Your task to perform on an android device: open app "Indeed Job Search" (install if not already installed) Image 0: 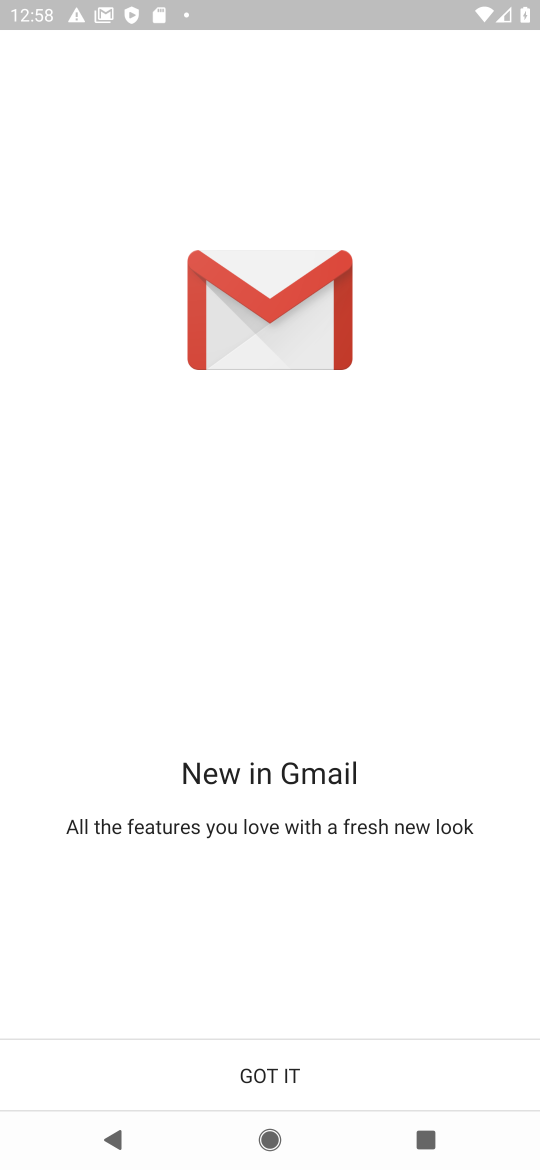
Step 0: press home button
Your task to perform on an android device: open app "Indeed Job Search" (install if not already installed) Image 1: 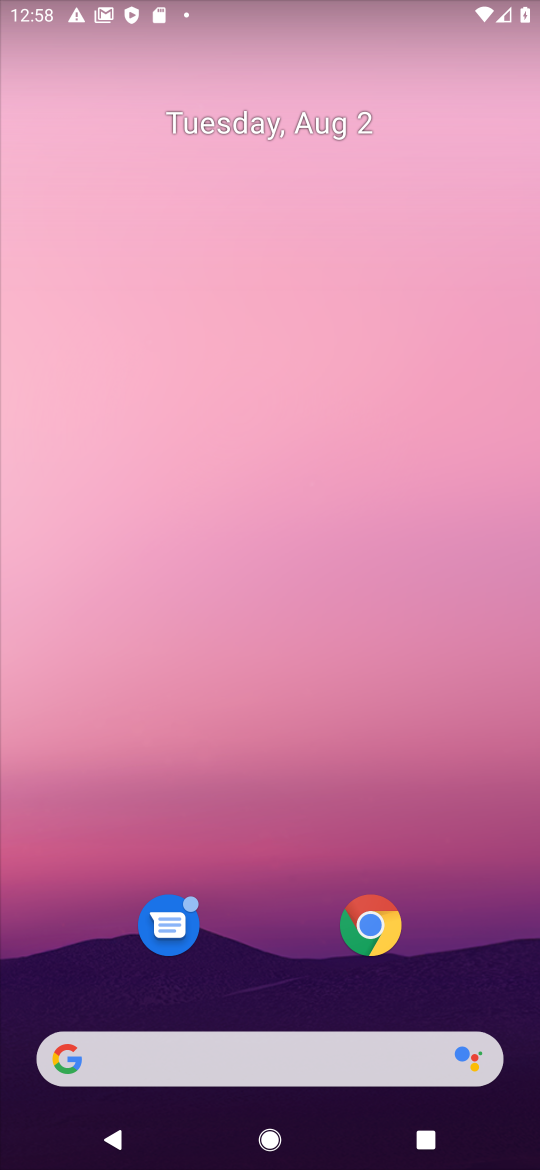
Step 1: drag from (279, 986) to (425, 9)
Your task to perform on an android device: open app "Indeed Job Search" (install if not already installed) Image 2: 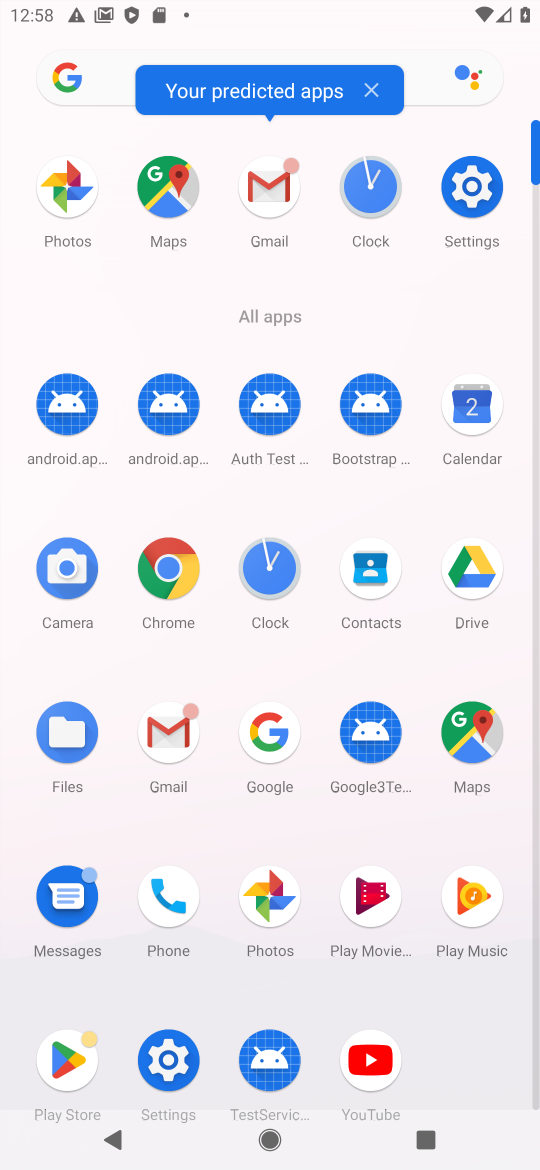
Step 2: click (53, 1051)
Your task to perform on an android device: open app "Indeed Job Search" (install if not already installed) Image 3: 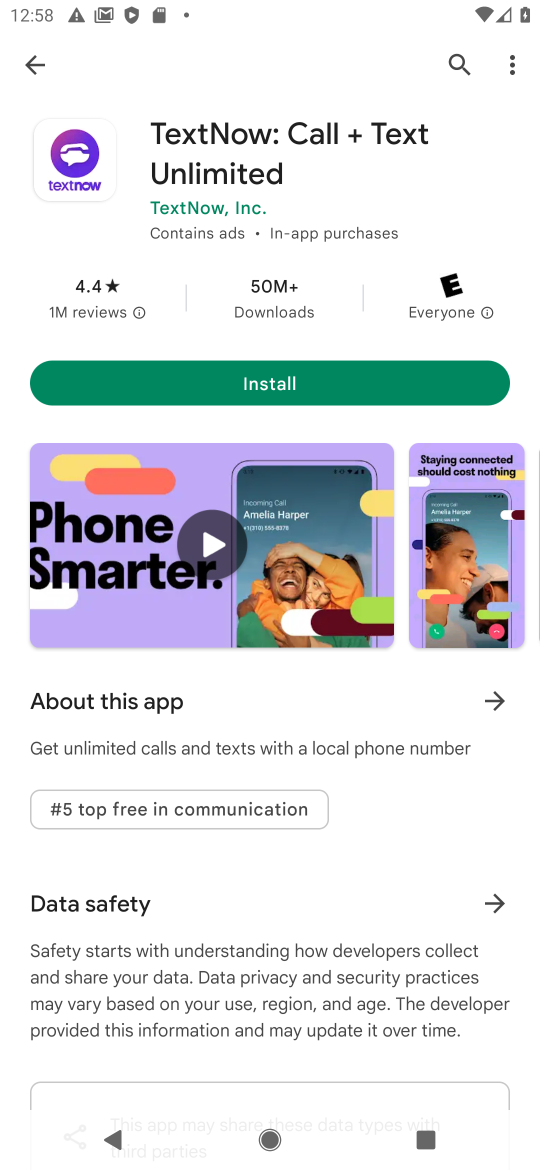
Step 3: click (455, 66)
Your task to perform on an android device: open app "Indeed Job Search" (install if not already installed) Image 4: 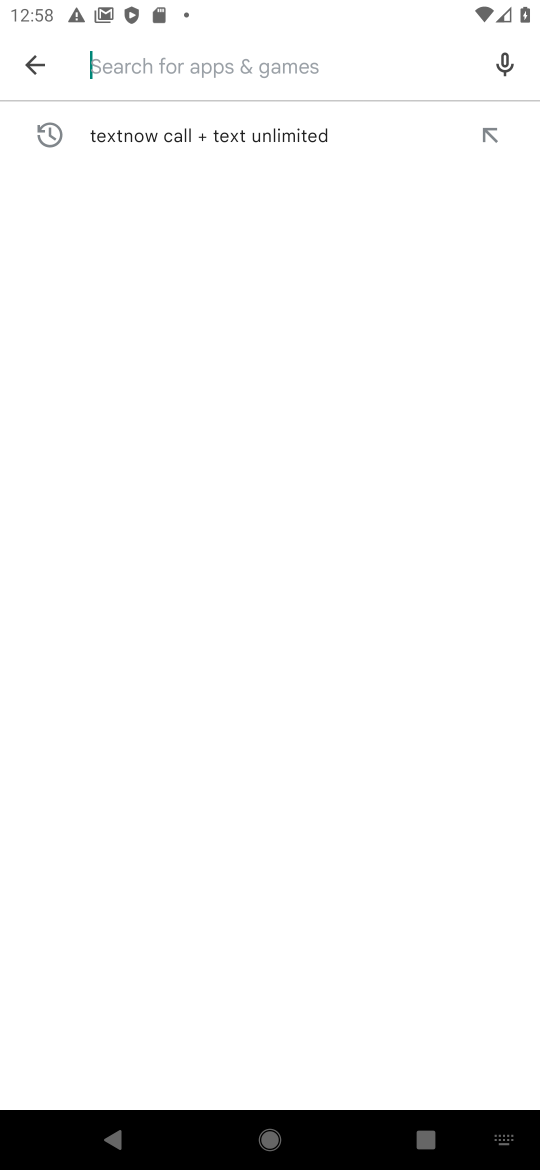
Step 4: type "indeed job search"
Your task to perform on an android device: open app "Indeed Job Search" (install if not already installed) Image 5: 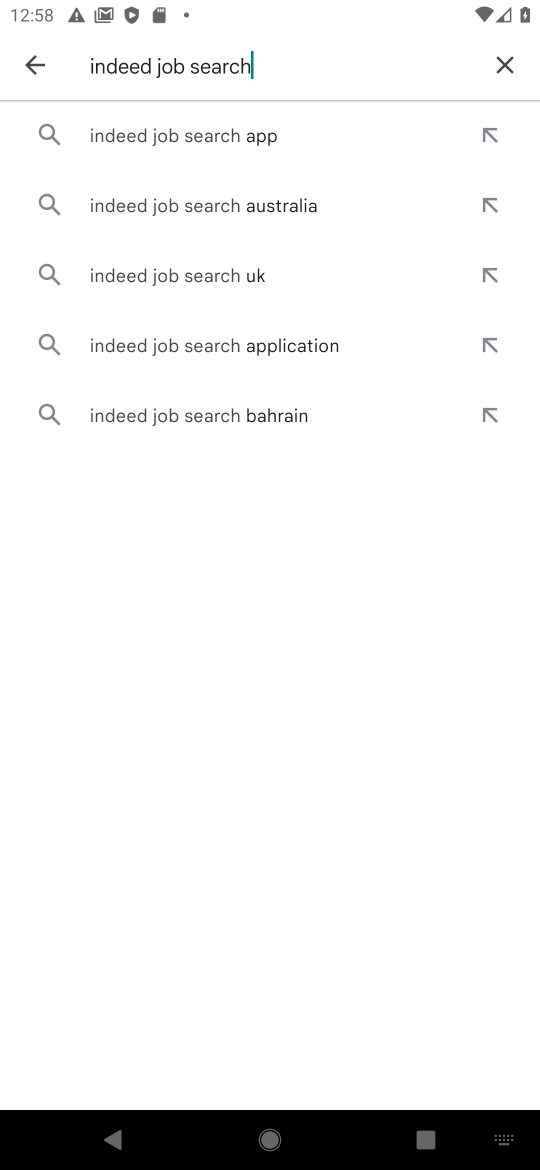
Step 5: click (266, 125)
Your task to perform on an android device: open app "Indeed Job Search" (install if not already installed) Image 6: 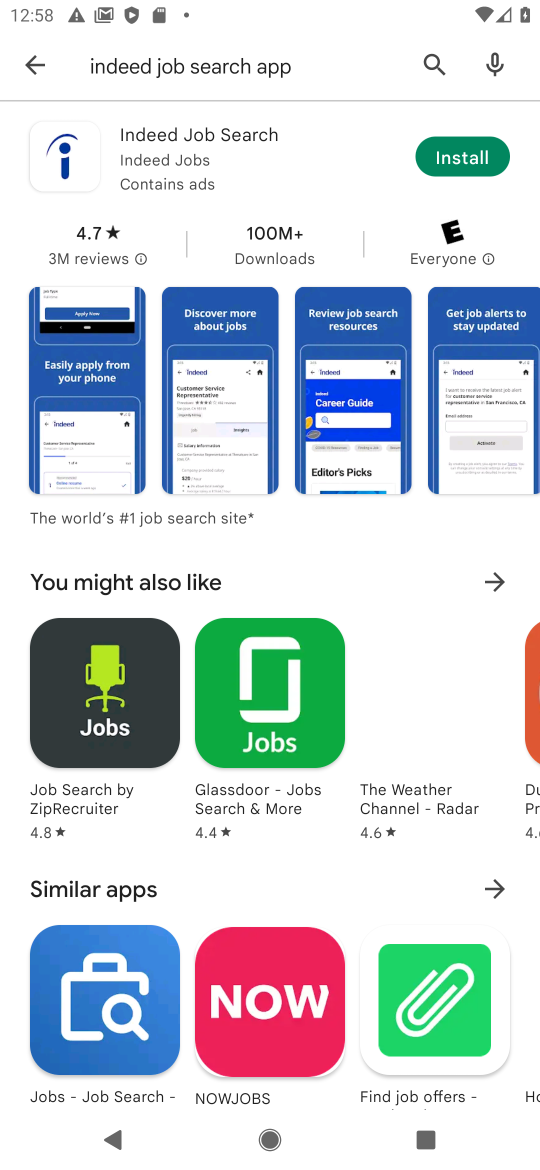
Step 6: click (294, 137)
Your task to perform on an android device: open app "Indeed Job Search" (install if not already installed) Image 7: 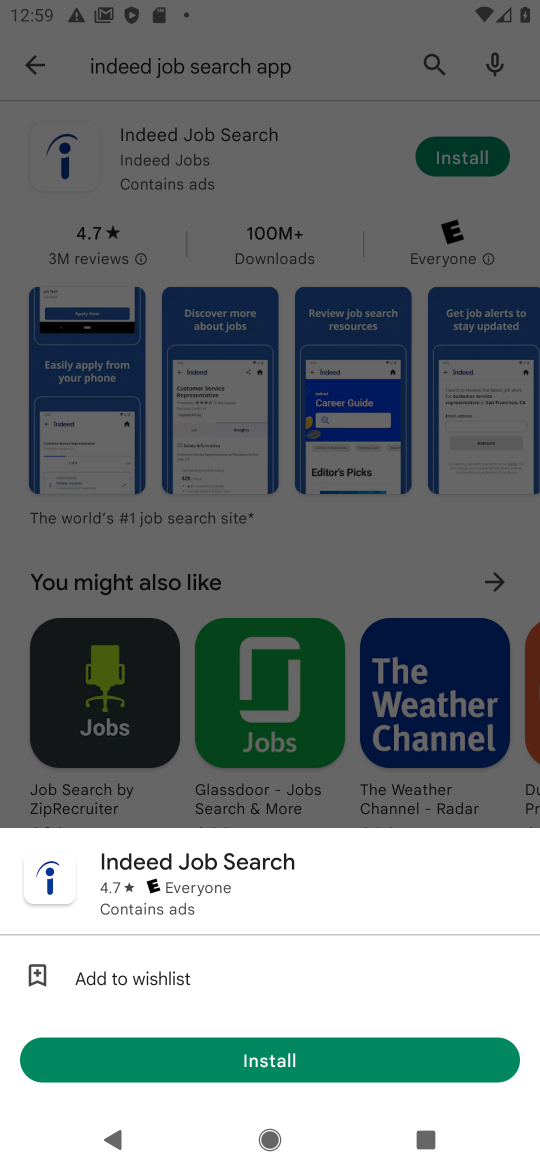
Step 7: click (182, 1060)
Your task to perform on an android device: open app "Indeed Job Search" (install if not already installed) Image 8: 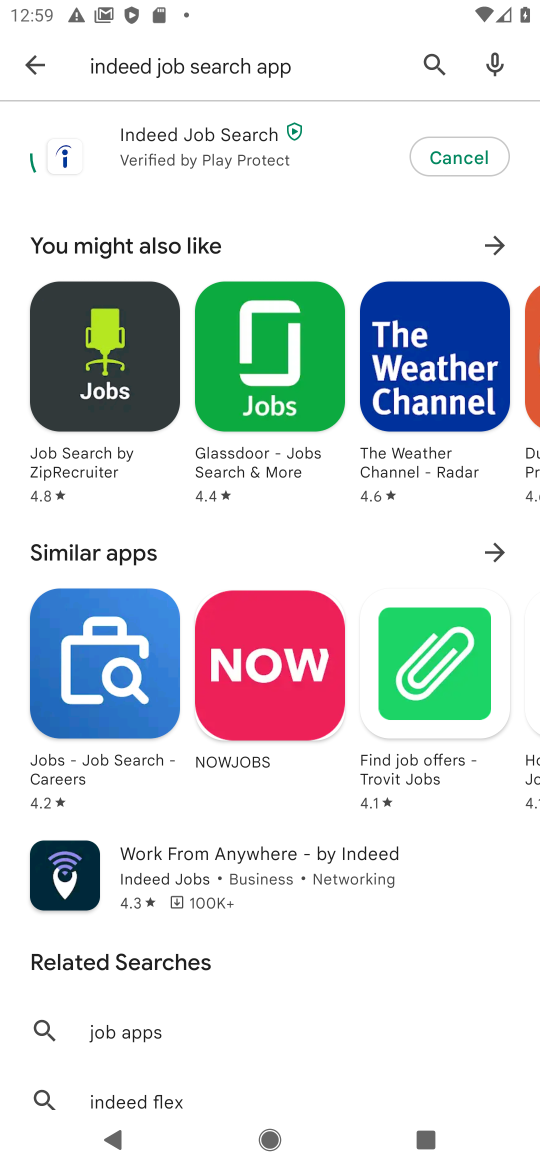
Step 8: click (218, 141)
Your task to perform on an android device: open app "Indeed Job Search" (install if not already installed) Image 9: 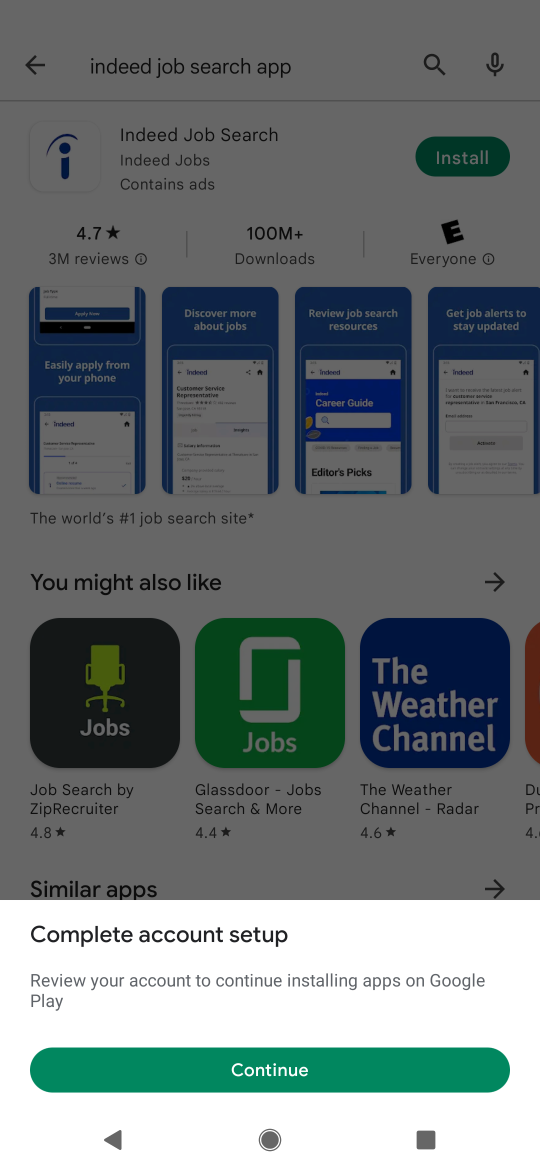
Step 9: click (244, 1059)
Your task to perform on an android device: open app "Indeed Job Search" (install if not already installed) Image 10: 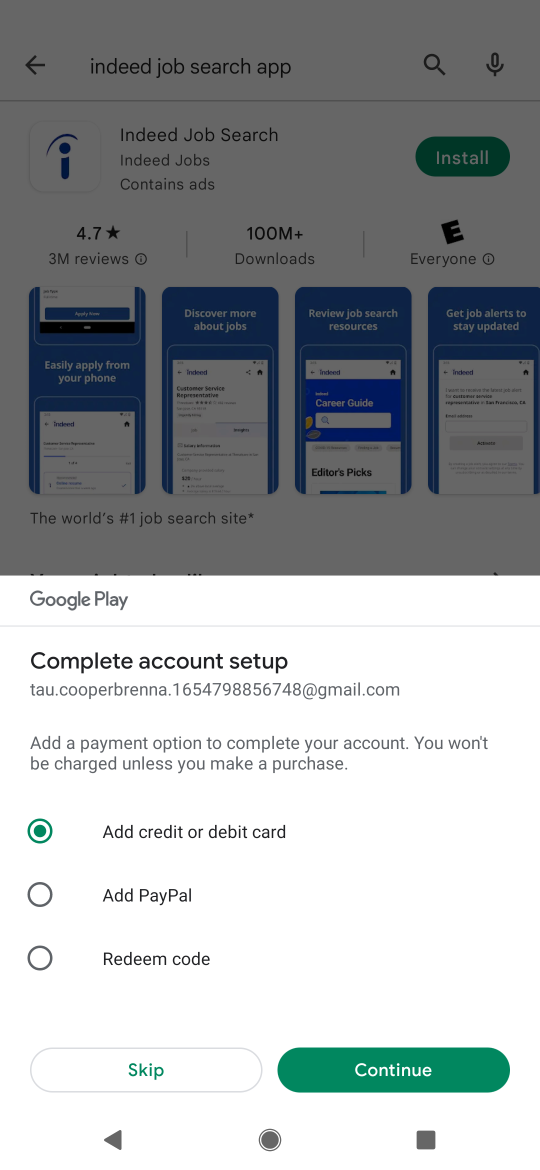
Step 10: click (113, 1072)
Your task to perform on an android device: open app "Indeed Job Search" (install if not already installed) Image 11: 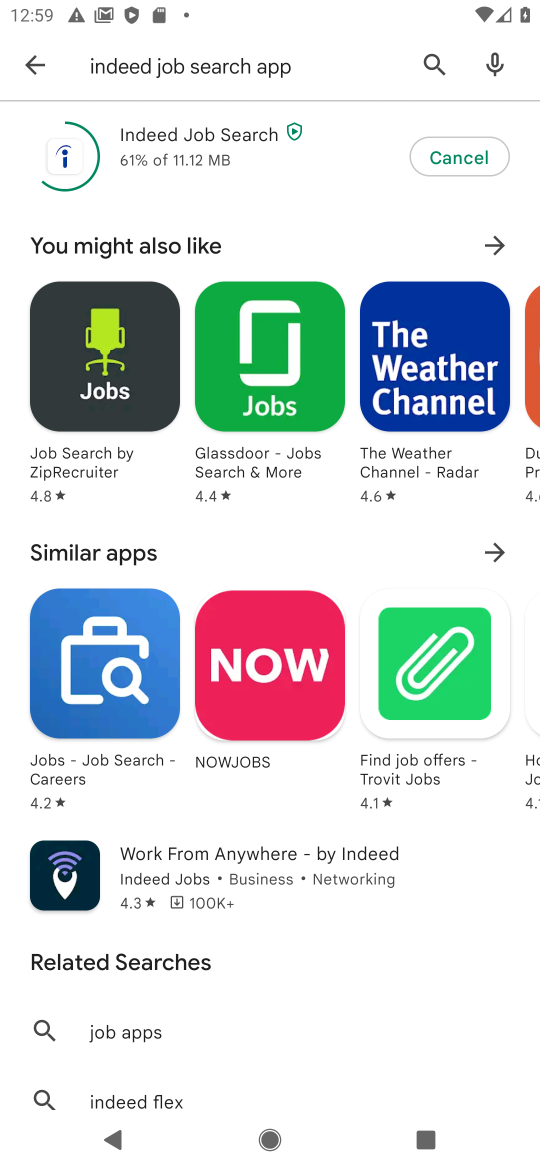
Step 11: click (163, 144)
Your task to perform on an android device: open app "Indeed Job Search" (install if not already installed) Image 12: 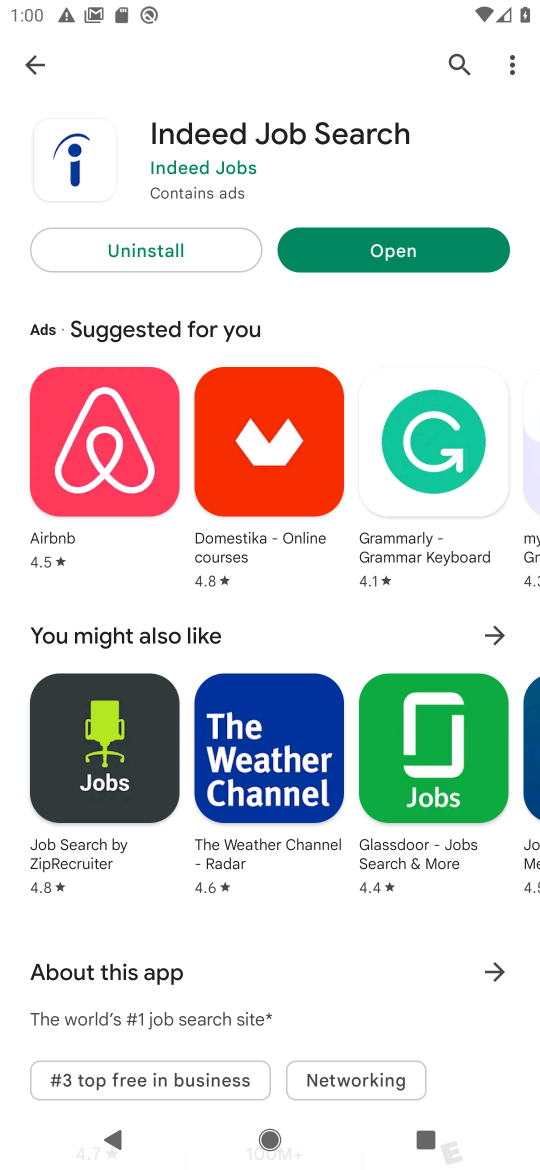
Step 12: click (468, 244)
Your task to perform on an android device: open app "Indeed Job Search" (install if not already installed) Image 13: 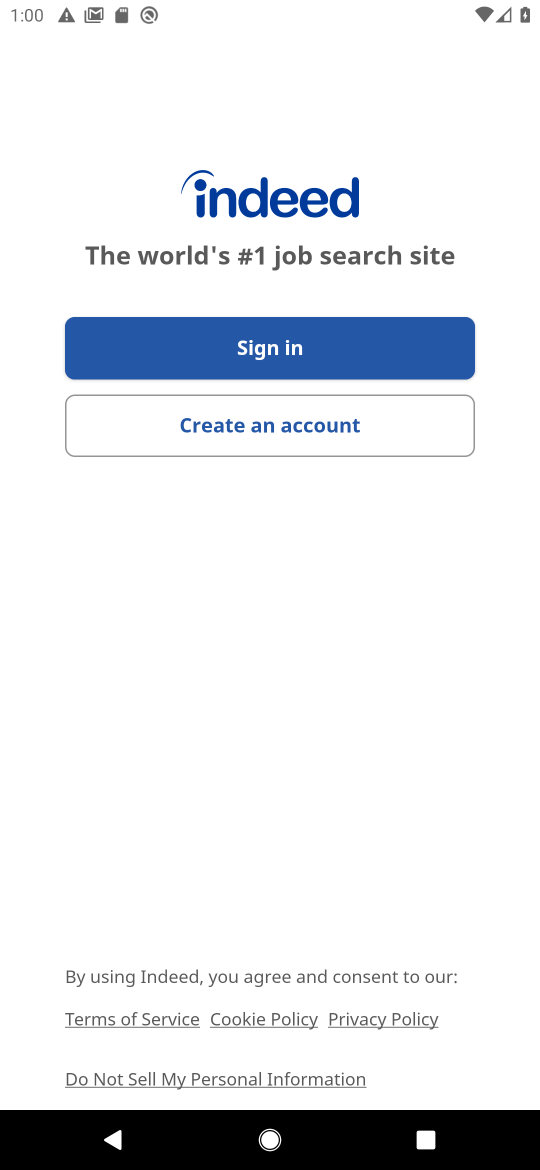
Step 13: task complete